Your task to perform on an android device: open chrome and create a bookmark for the current page Image 0: 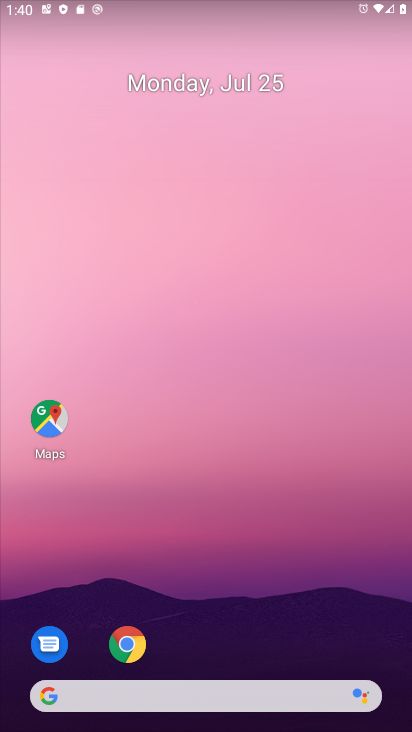
Step 0: drag from (236, 218) to (201, 35)
Your task to perform on an android device: open chrome and create a bookmark for the current page Image 1: 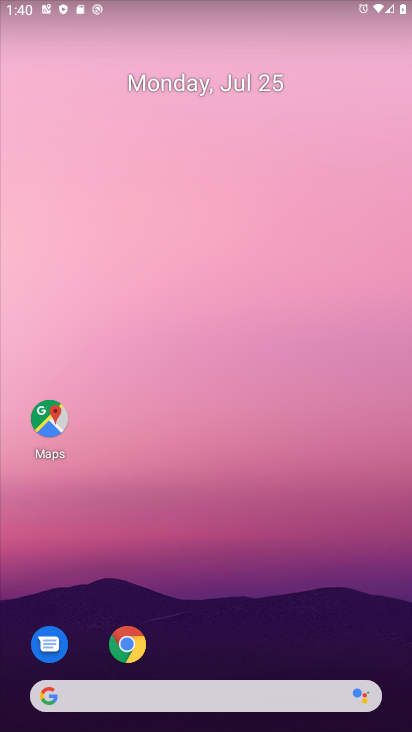
Step 1: drag from (339, 615) to (211, 65)
Your task to perform on an android device: open chrome and create a bookmark for the current page Image 2: 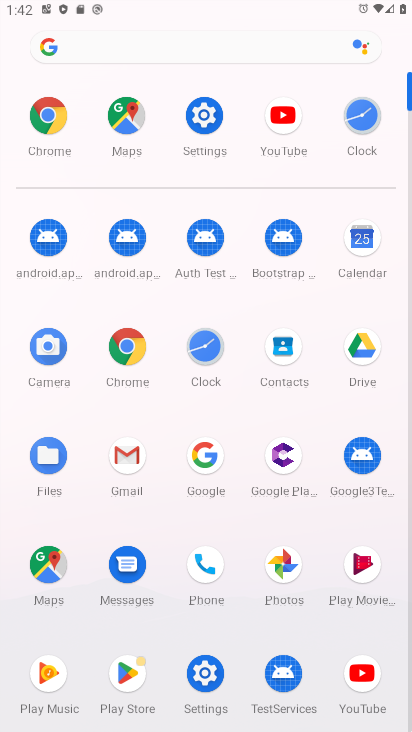
Step 2: click (127, 349)
Your task to perform on an android device: open chrome and create a bookmark for the current page Image 3: 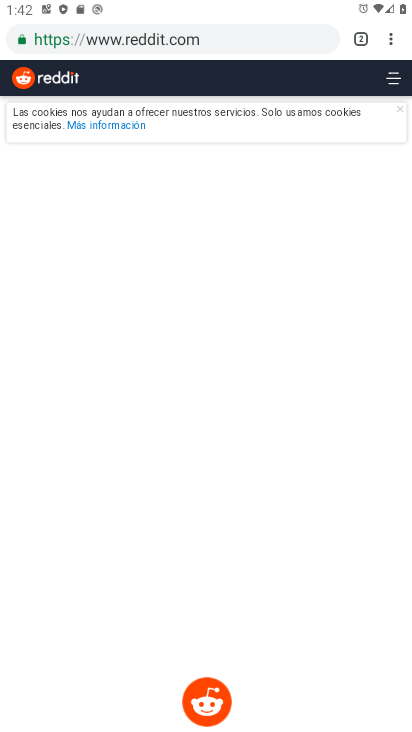
Step 3: task complete